Your task to perform on an android device: delete a single message in the gmail app Image 0: 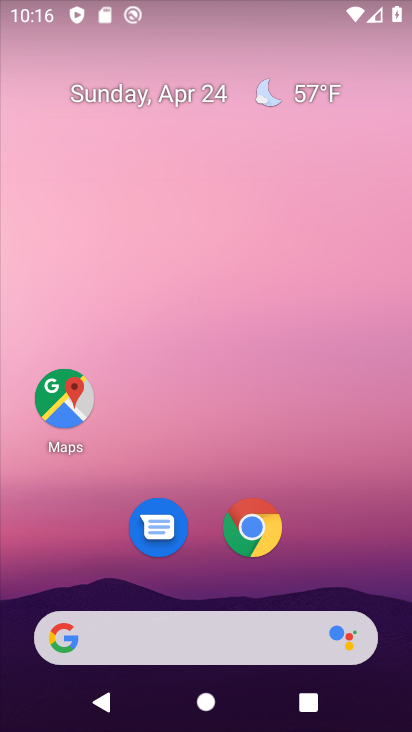
Step 0: drag from (265, 712) to (230, 43)
Your task to perform on an android device: delete a single message in the gmail app Image 1: 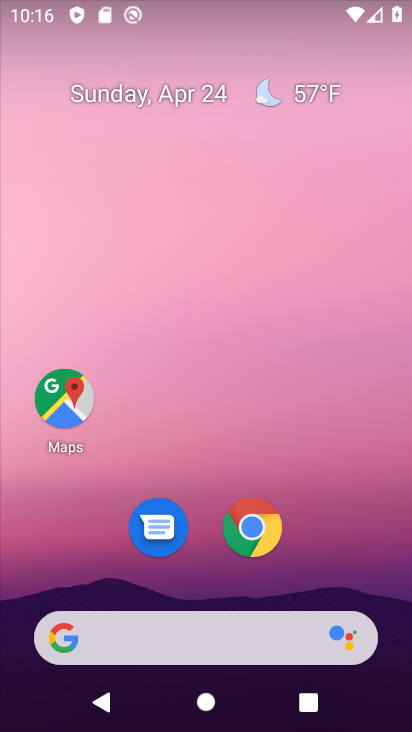
Step 1: drag from (226, 352) to (150, 39)
Your task to perform on an android device: delete a single message in the gmail app Image 2: 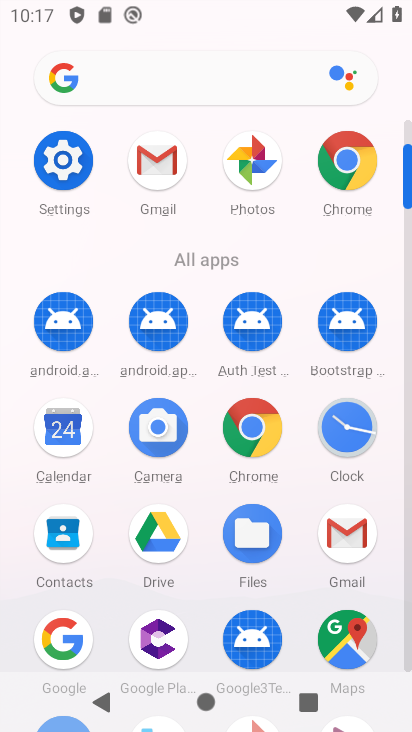
Step 2: click (359, 527)
Your task to perform on an android device: delete a single message in the gmail app Image 3: 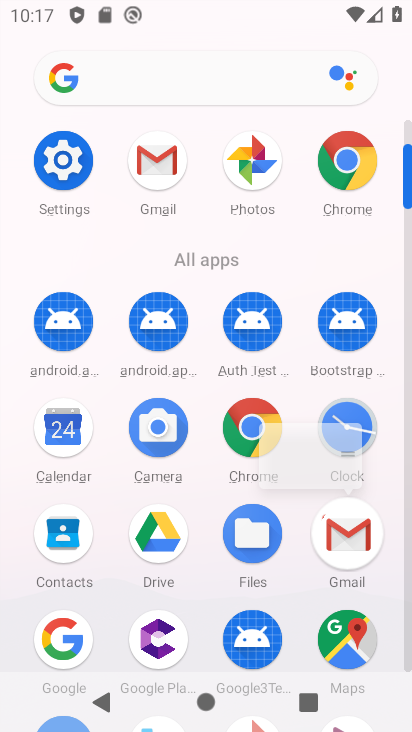
Step 3: click (358, 525)
Your task to perform on an android device: delete a single message in the gmail app Image 4: 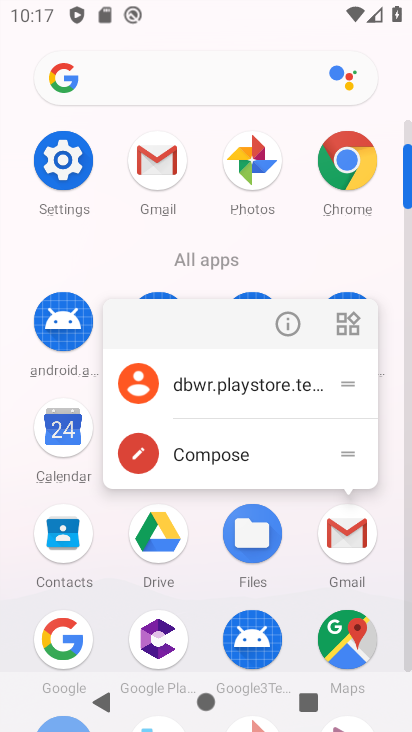
Step 4: click (358, 525)
Your task to perform on an android device: delete a single message in the gmail app Image 5: 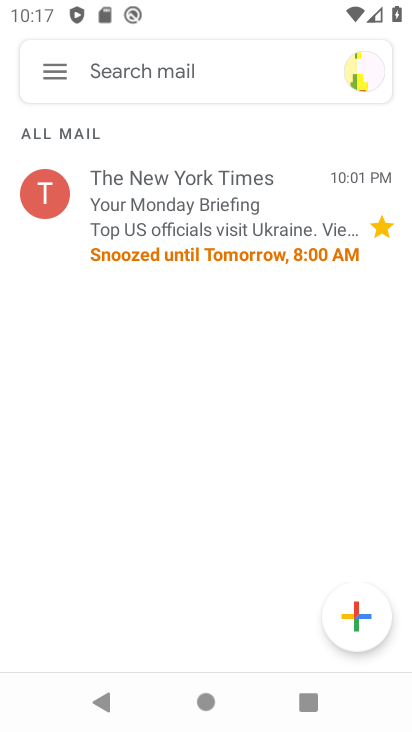
Step 5: click (272, 222)
Your task to perform on an android device: delete a single message in the gmail app Image 6: 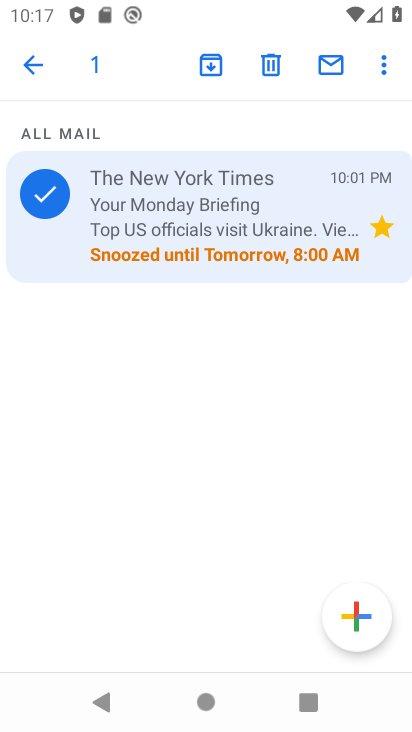
Step 6: click (273, 62)
Your task to perform on an android device: delete a single message in the gmail app Image 7: 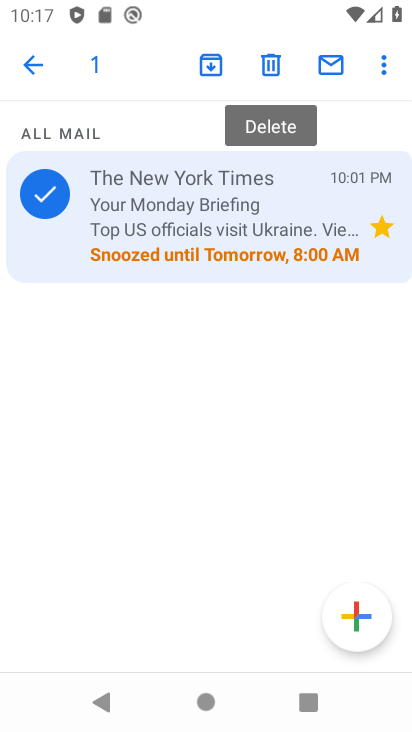
Step 7: click (278, 132)
Your task to perform on an android device: delete a single message in the gmail app Image 8: 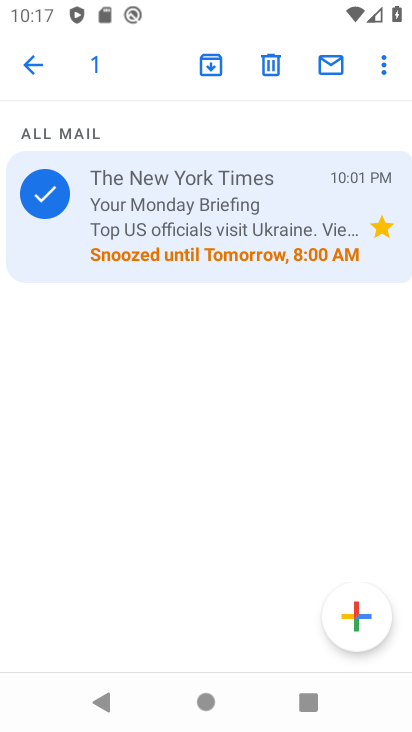
Step 8: click (265, 61)
Your task to perform on an android device: delete a single message in the gmail app Image 9: 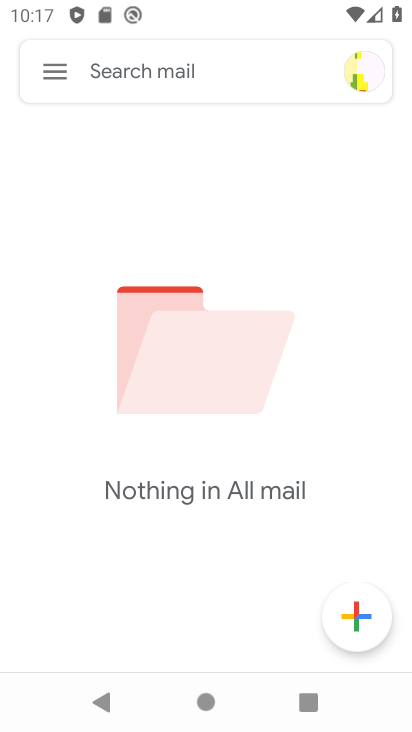
Step 9: task complete